Your task to perform on an android device: Go to Google Image 0: 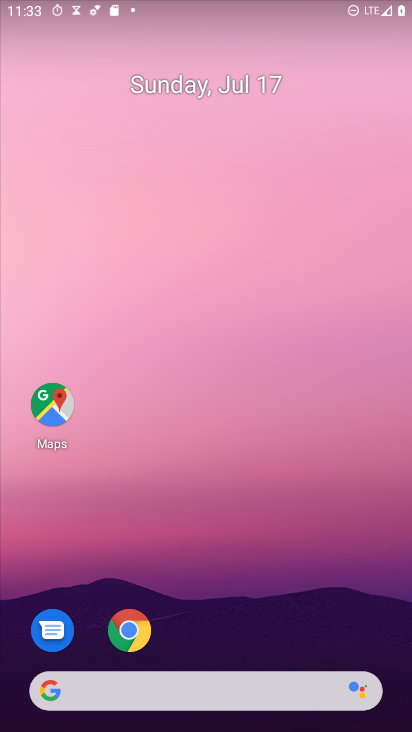
Step 0: drag from (268, 653) to (310, 69)
Your task to perform on an android device: Go to Google Image 1: 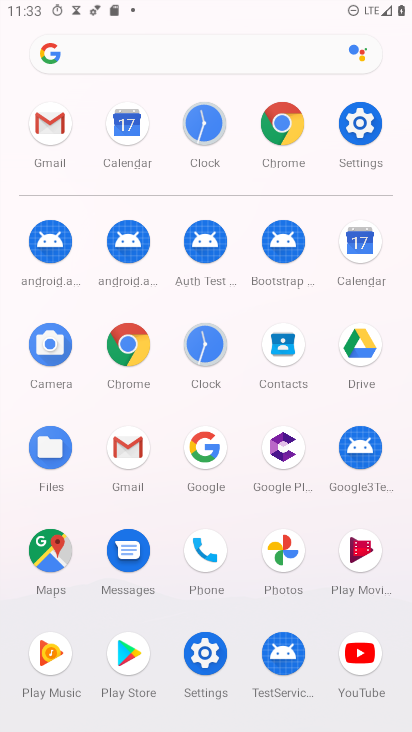
Step 1: click (130, 350)
Your task to perform on an android device: Go to Google Image 2: 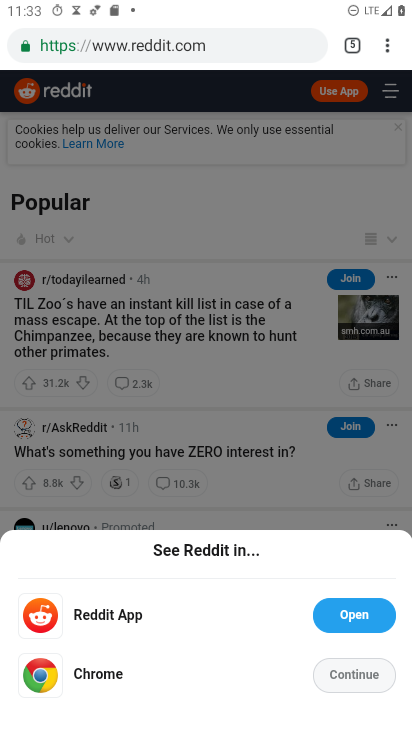
Step 2: task complete